Your task to perform on an android device: change the clock display to digital Image 0: 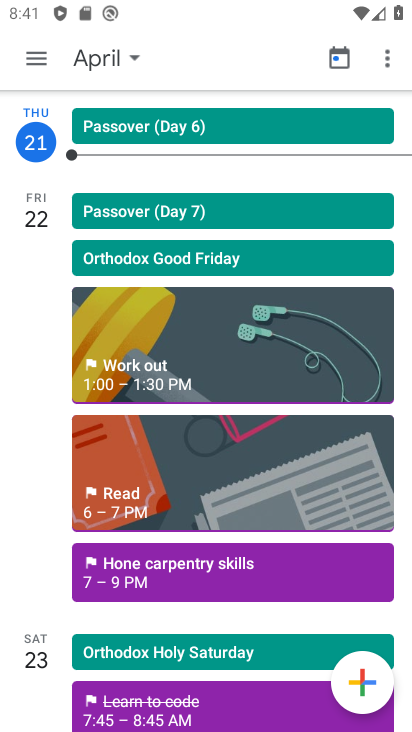
Step 0: press home button
Your task to perform on an android device: change the clock display to digital Image 1: 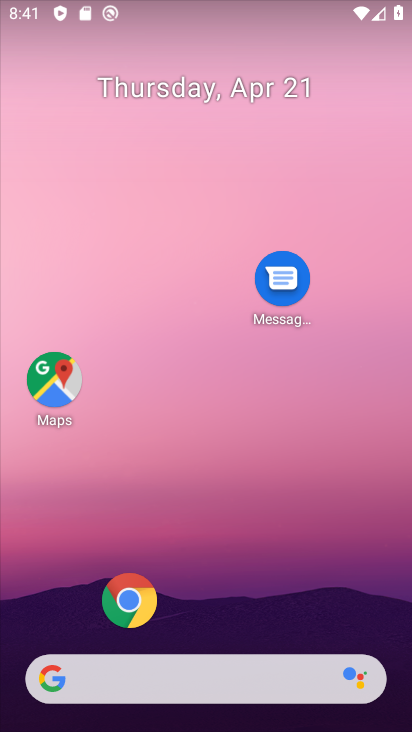
Step 1: drag from (105, 424) to (260, 206)
Your task to perform on an android device: change the clock display to digital Image 2: 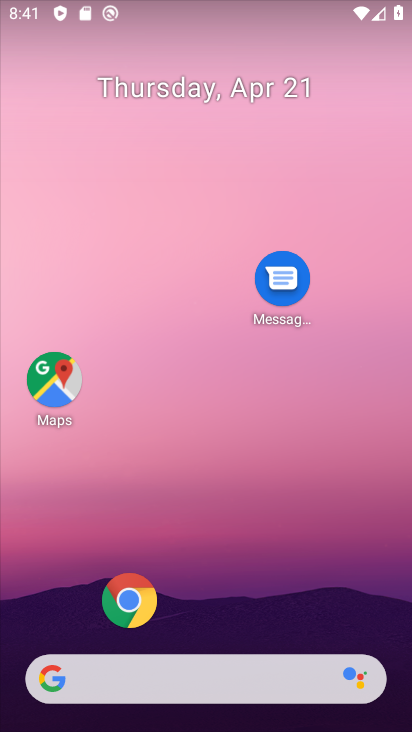
Step 2: drag from (90, 422) to (227, 117)
Your task to perform on an android device: change the clock display to digital Image 3: 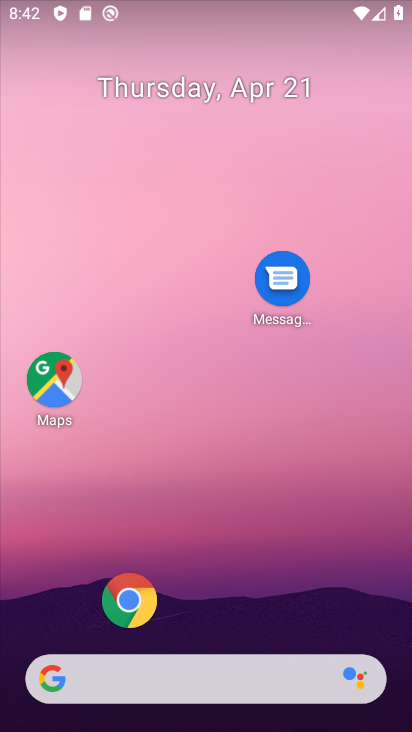
Step 3: drag from (19, 688) to (188, 200)
Your task to perform on an android device: change the clock display to digital Image 4: 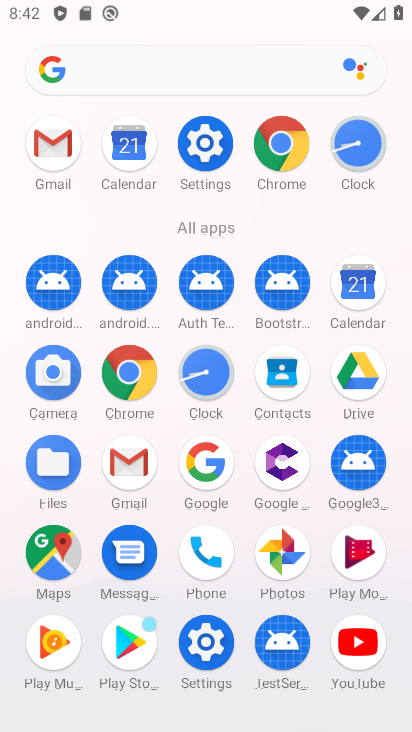
Step 4: click (339, 152)
Your task to perform on an android device: change the clock display to digital Image 5: 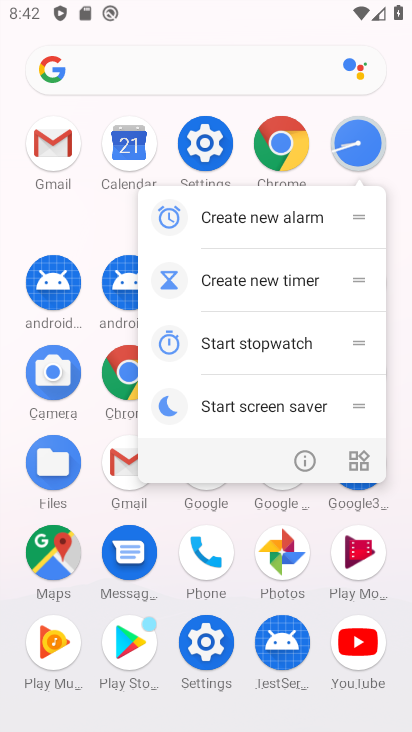
Step 5: click (304, 459)
Your task to perform on an android device: change the clock display to digital Image 6: 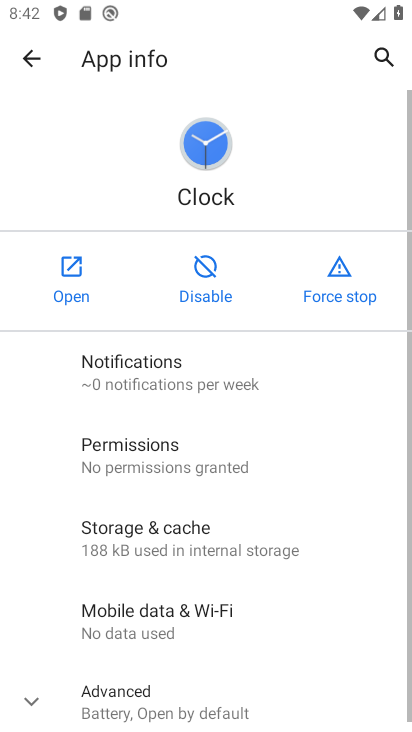
Step 6: click (84, 272)
Your task to perform on an android device: change the clock display to digital Image 7: 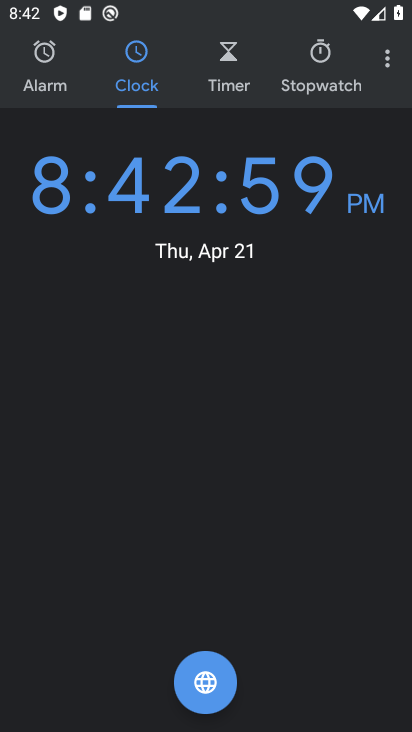
Step 7: click (382, 64)
Your task to perform on an android device: change the clock display to digital Image 8: 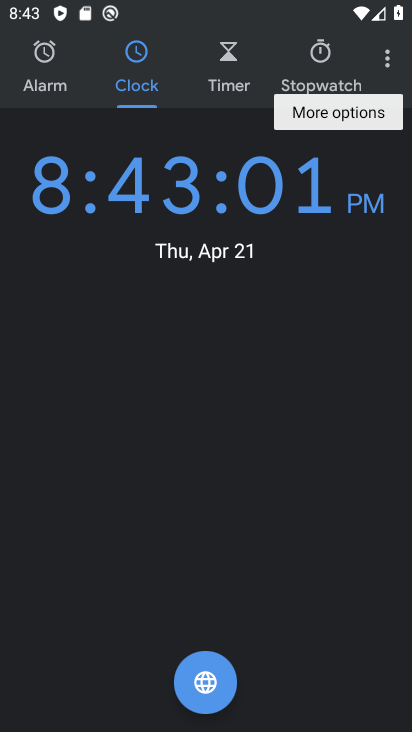
Step 8: click (384, 56)
Your task to perform on an android device: change the clock display to digital Image 9: 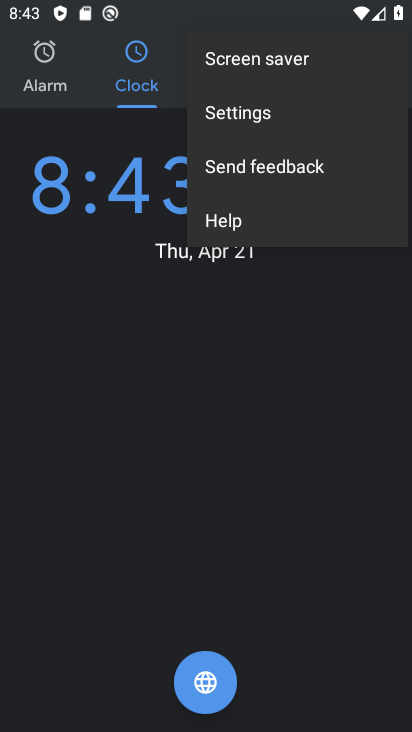
Step 9: click (285, 108)
Your task to perform on an android device: change the clock display to digital Image 10: 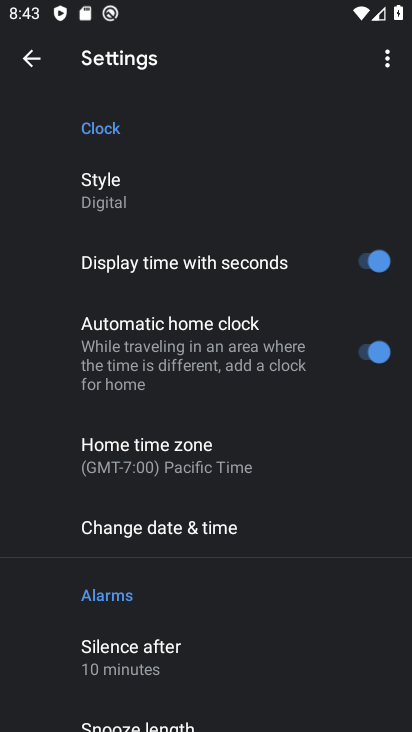
Step 10: click (188, 214)
Your task to perform on an android device: change the clock display to digital Image 11: 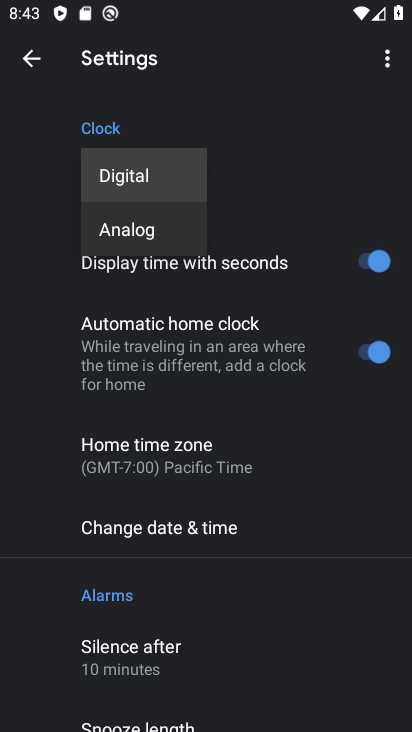
Step 11: click (162, 181)
Your task to perform on an android device: change the clock display to digital Image 12: 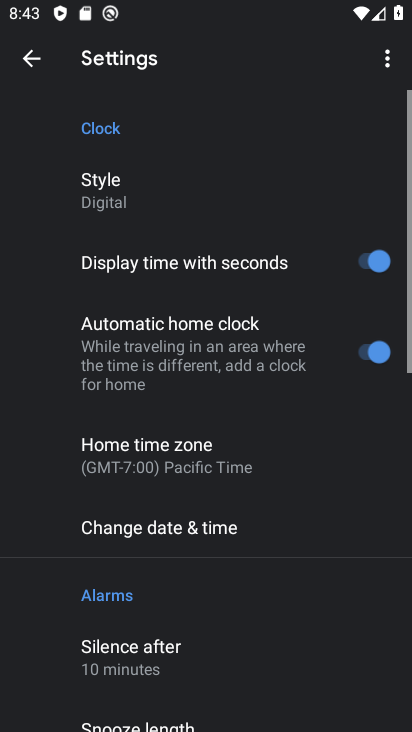
Step 12: task complete